Your task to perform on an android device: What's the weather going to be tomorrow? Image 0: 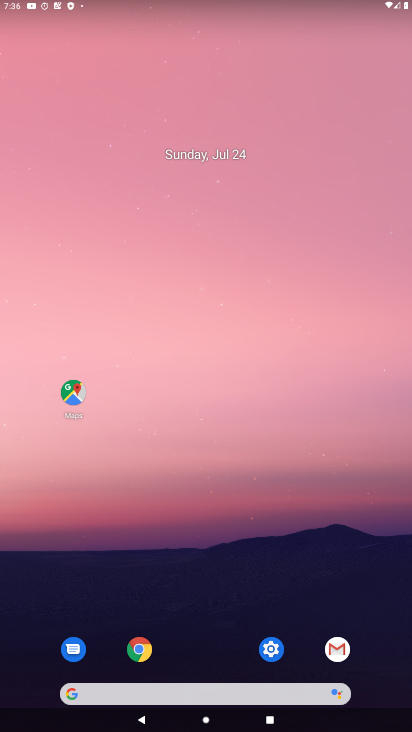
Step 0: drag from (262, 649) to (208, 354)
Your task to perform on an android device: What's the weather going to be tomorrow? Image 1: 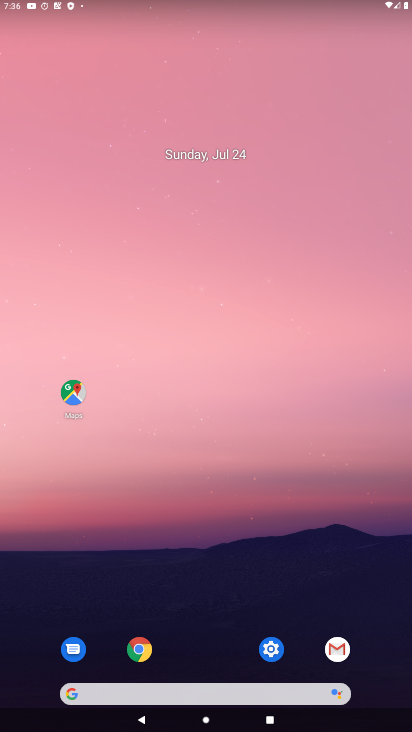
Step 1: click (154, 687)
Your task to perform on an android device: What's the weather going to be tomorrow? Image 2: 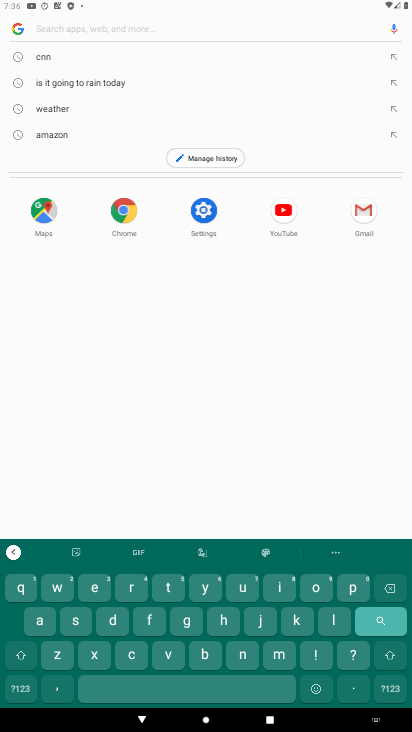
Step 2: click (59, 589)
Your task to perform on an android device: What's the weather going to be tomorrow? Image 3: 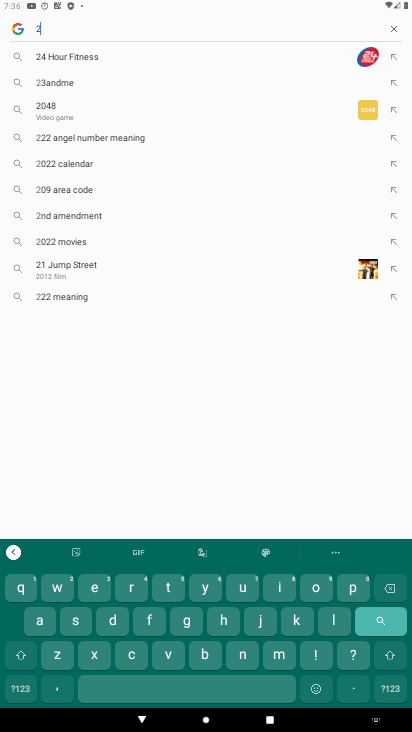
Step 3: click (395, 585)
Your task to perform on an android device: What's the weather going to be tomorrow? Image 4: 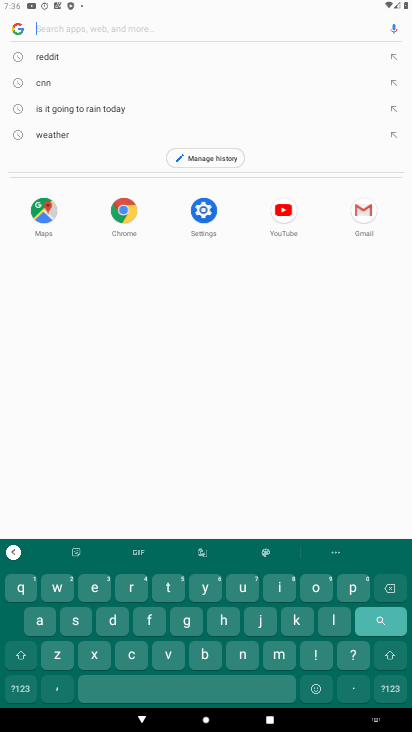
Step 4: click (57, 588)
Your task to perform on an android device: What's the weather going to be tomorrow? Image 5: 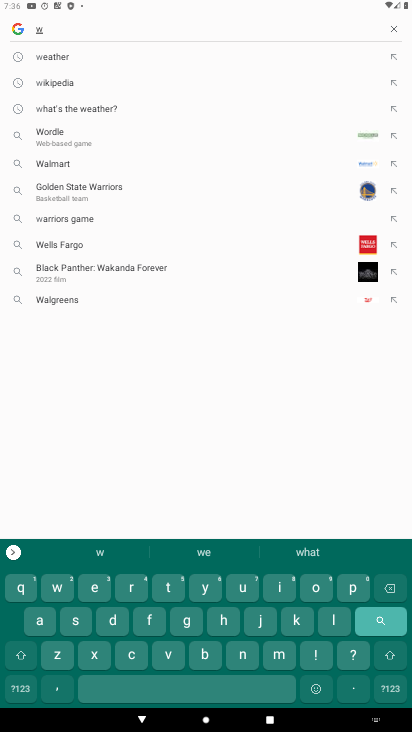
Step 5: click (221, 616)
Your task to perform on an android device: What's the weather going to be tomorrow? Image 6: 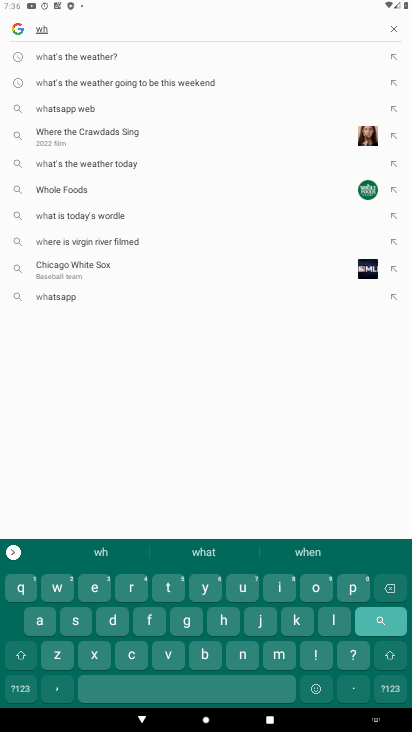
Step 6: click (35, 625)
Your task to perform on an android device: What's the weather going to be tomorrow? Image 7: 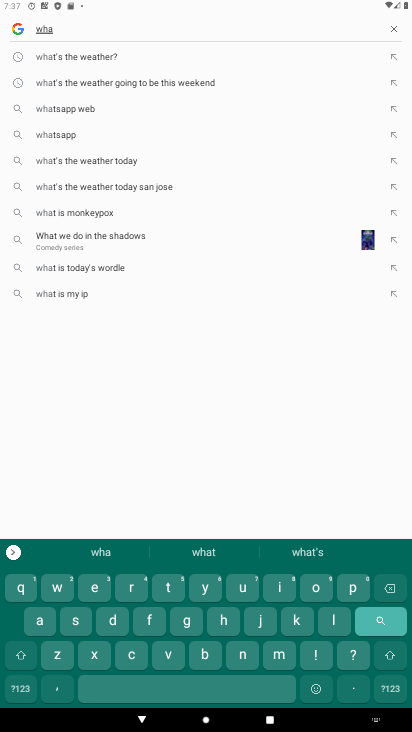
Step 7: click (298, 555)
Your task to perform on an android device: What's the weather going to be tomorrow? Image 8: 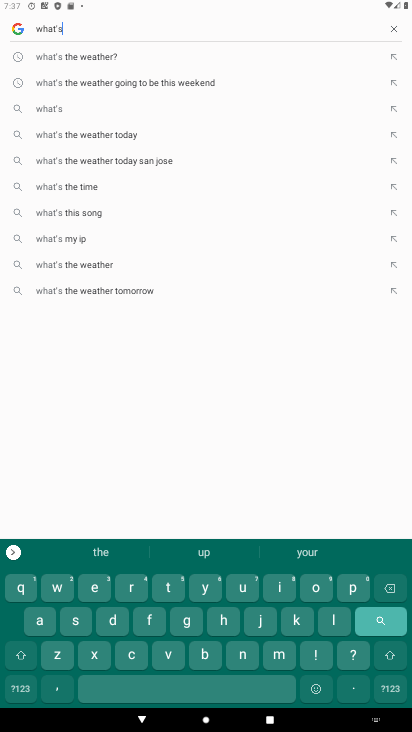
Step 8: click (168, 593)
Your task to perform on an android device: What's the weather going to be tomorrow? Image 9: 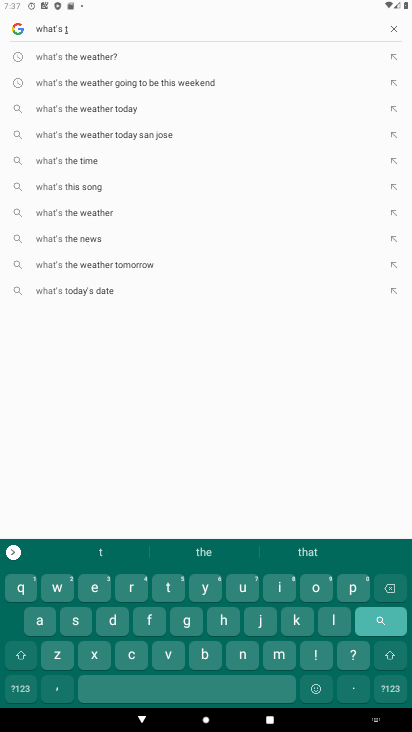
Step 9: click (200, 552)
Your task to perform on an android device: What's the weather going to be tomorrow? Image 10: 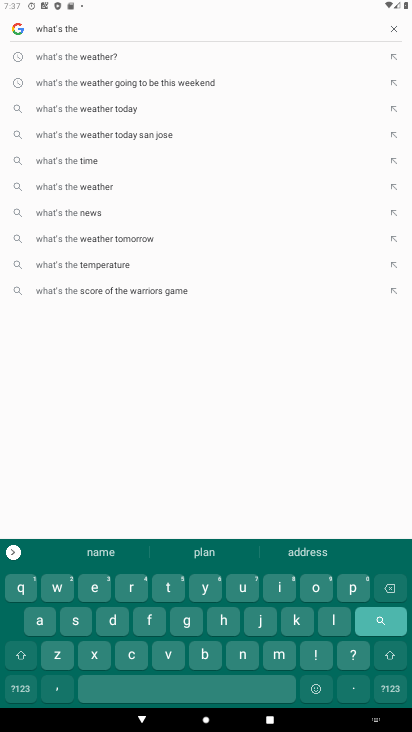
Step 10: click (54, 588)
Your task to perform on an android device: What's the weather going to be tomorrow? Image 11: 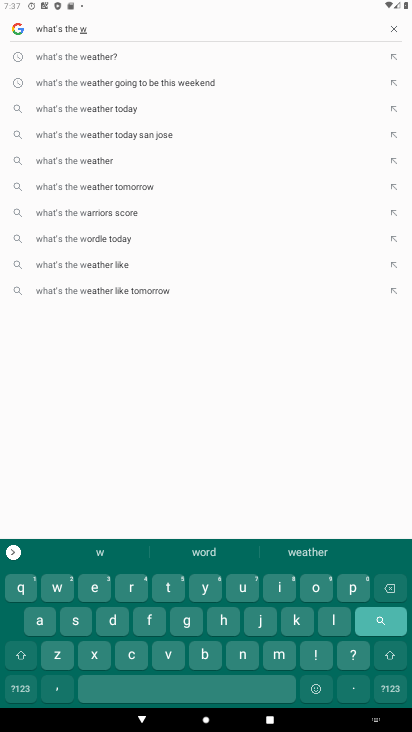
Step 11: click (127, 189)
Your task to perform on an android device: What's the weather going to be tomorrow? Image 12: 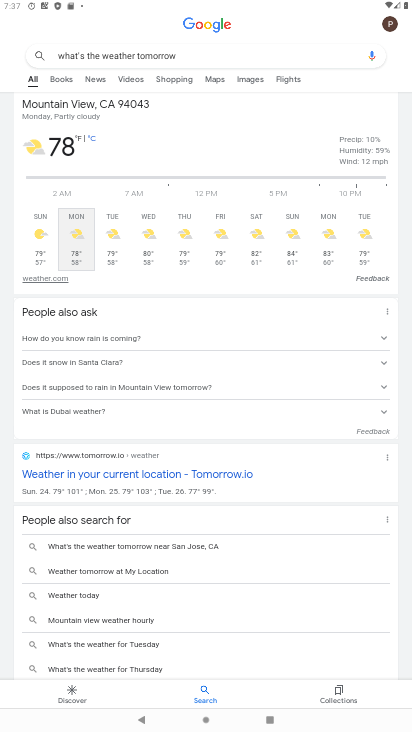
Step 12: task complete